Your task to perform on an android device: Go to accessibility settings Image 0: 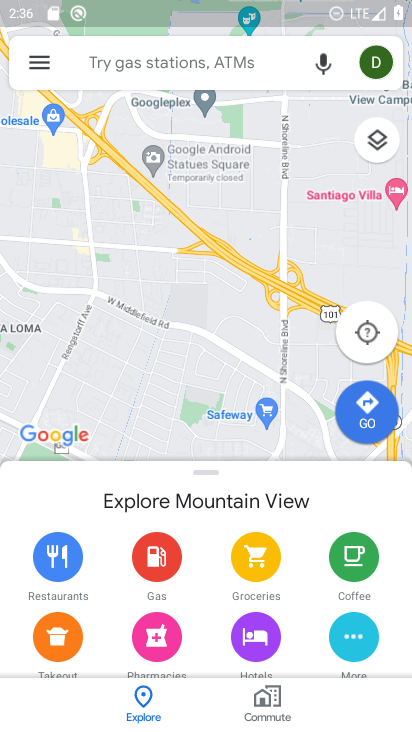
Step 0: drag from (352, 636) to (306, 381)
Your task to perform on an android device: Go to accessibility settings Image 1: 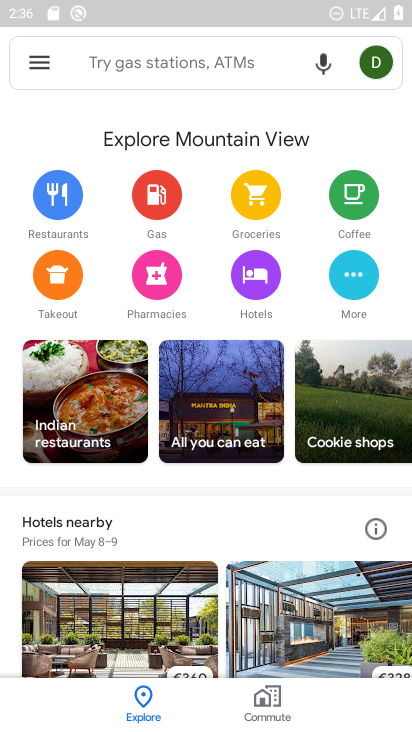
Step 1: press home button
Your task to perform on an android device: Go to accessibility settings Image 2: 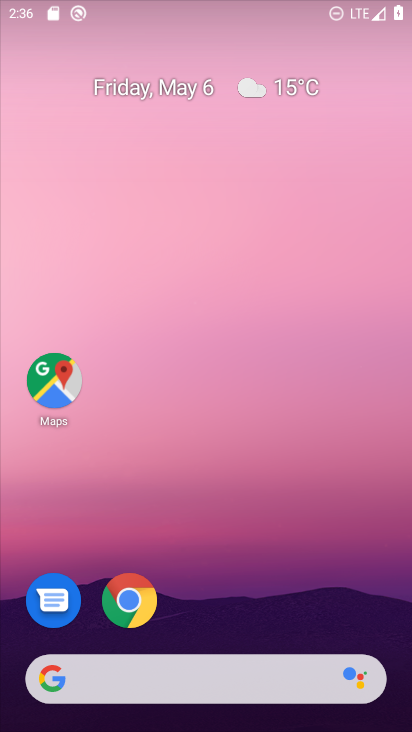
Step 2: drag from (304, 632) to (236, 87)
Your task to perform on an android device: Go to accessibility settings Image 3: 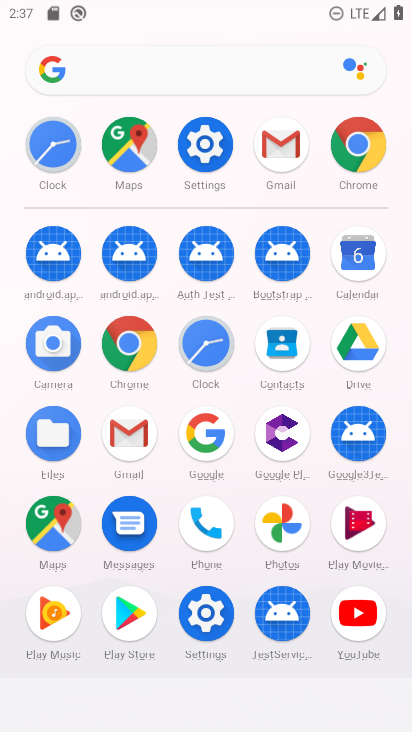
Step 3: click (206, 160)
Your task to perform on an android device: Go to accessibility settings Image 4: 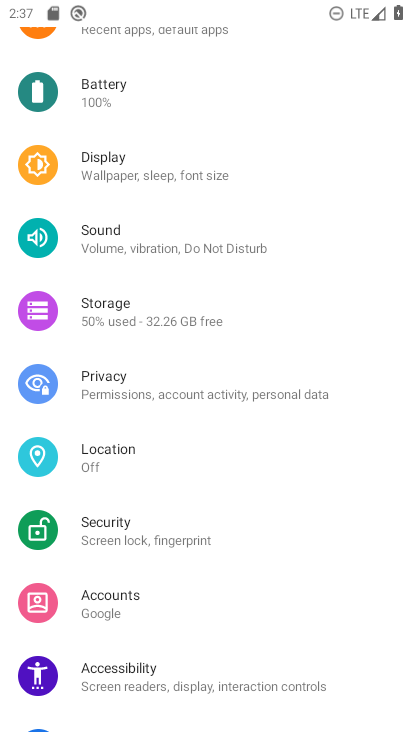
Step 4: click (146, 666)
Your task to perform on an android device: Go to accessibility settings Image 5: 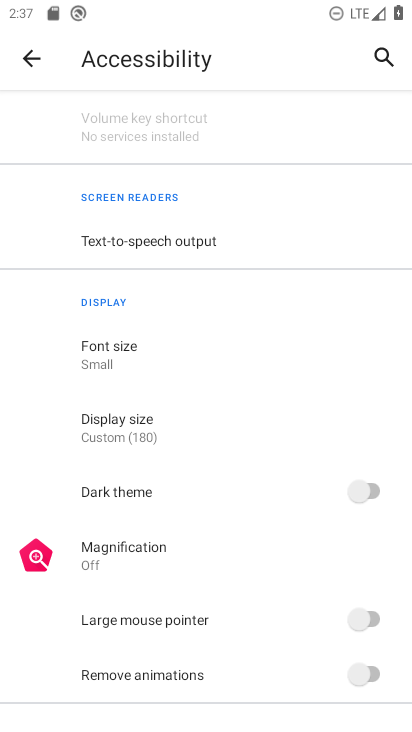
Step 5: task complete